Your task to perform on an android device: Open calendar and show me the fourth week of next month Image 0: 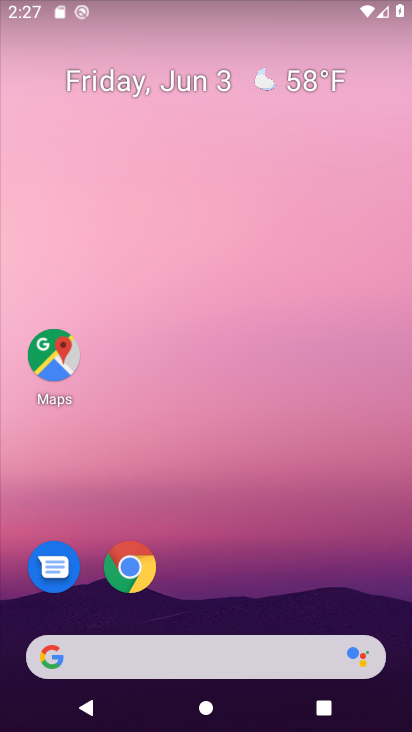
Step 0: drag from (245, 682) to (279, 139)
Your task to perform on an android device: Open calendar and show me the fourth week of next month Image 1: 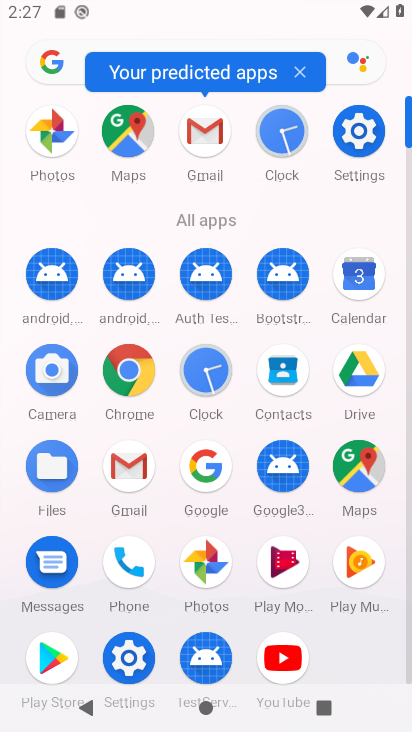
Step 1: click (358, 283)
Your task to perform on an android device: Open calendar and show me the fourth week of next month Image 2: 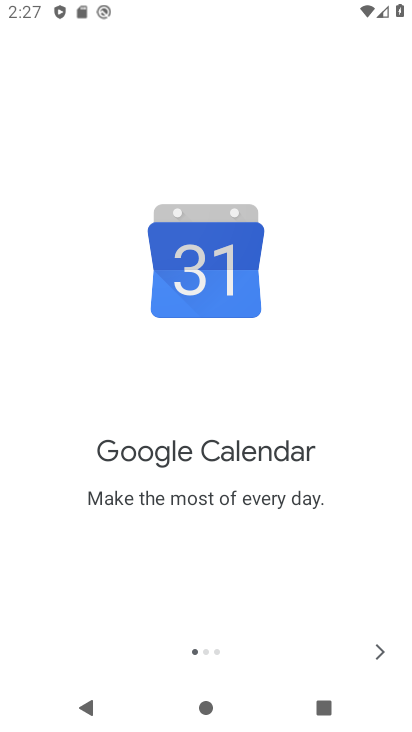
Step 2: click (375, 647)
Your task to perform on an android device: Open calendar and show me the fourth week of next month Image 3: 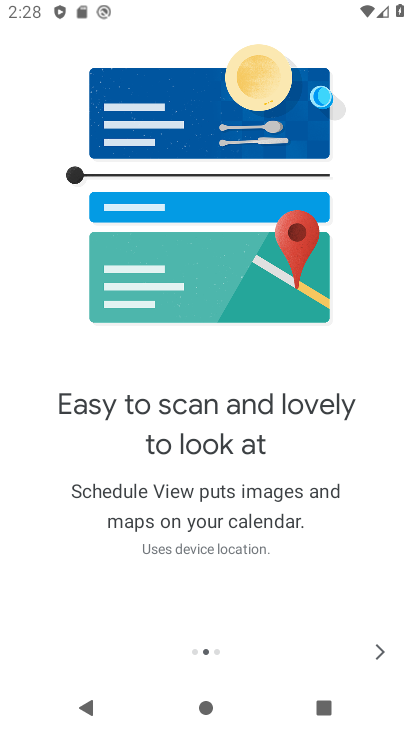
Step 3: click (378, 661)
Your task to perform on an android device: Open calendar and show me the fourth week of next month Image 4: 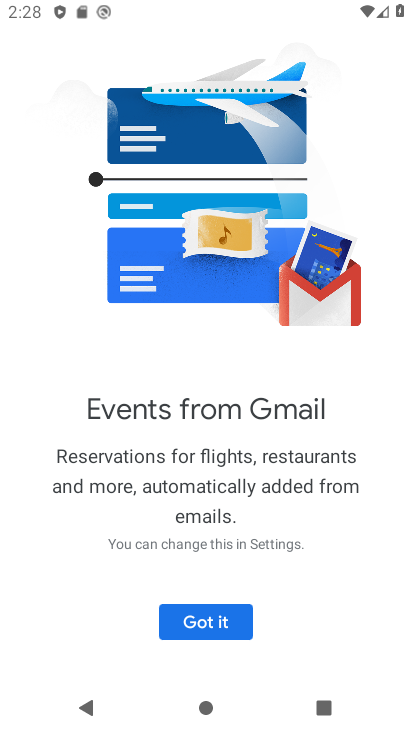
Step 4: click (164, 618)
Your task to perform on an android device: Open calendar and show me the fourth week of next month Image 5: 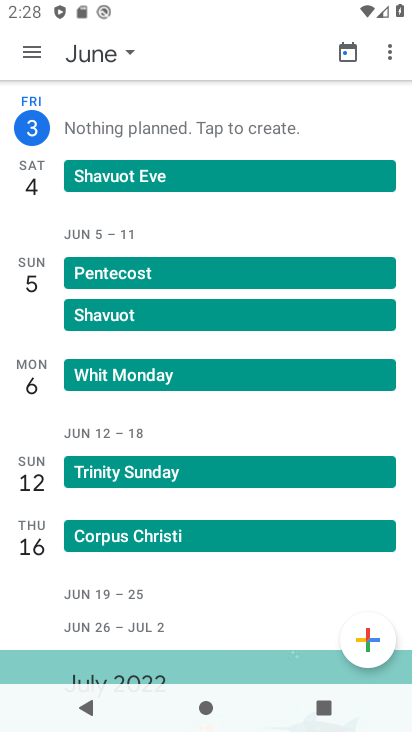
Step 5: click (37, 57)
Your task to perform on an android device: Open calendar and show me the fourth week of next month Image 6: 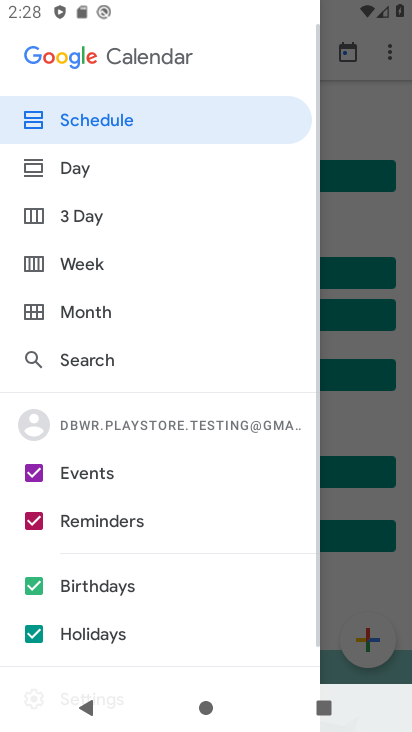
Step 6: click (116, 308)
Your task to perform on an android device: Open calendar and show me the fourth week of next month Image 7: 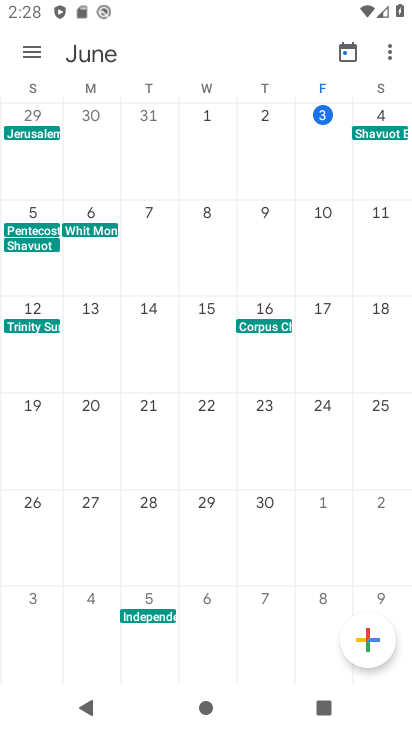
Step 7: click (96, 510)
Your task to perform on an android device: Open calendar and show me the fourth week of next month Image 8: 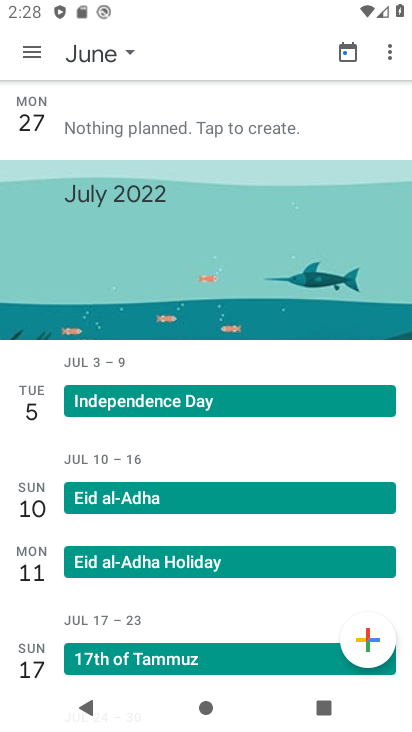
Step 8: task complete